Your task to perform on an android device: toggle notification dots Image 0: 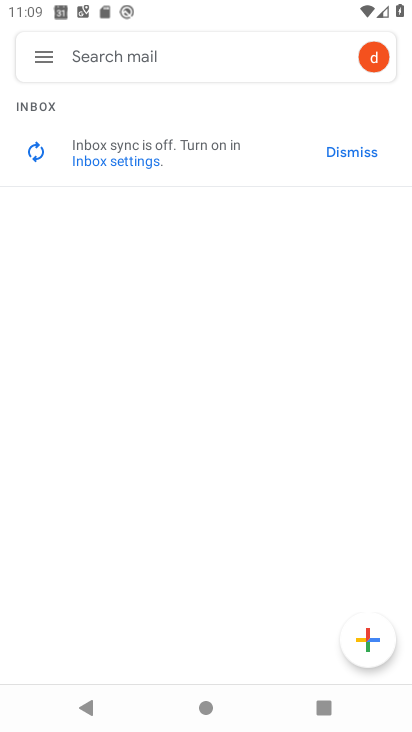
Step 0: press home button
Your task to perform on an android device: toggle notification dots Image 1: 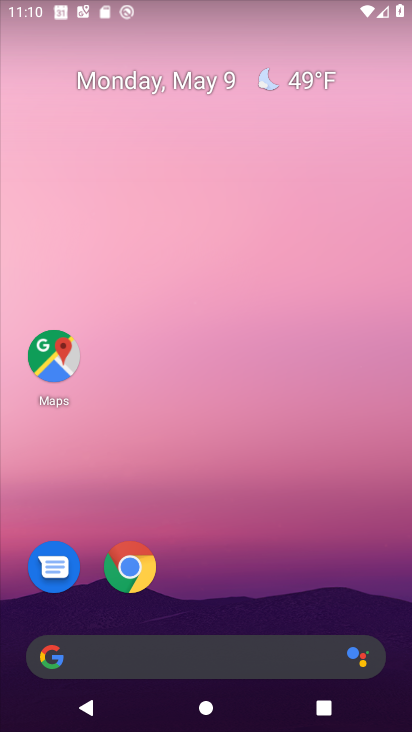
Step 1: drag from (166, 638) to (185, 308)
Your task to perform on an android device: toggle notification dots Image 2: 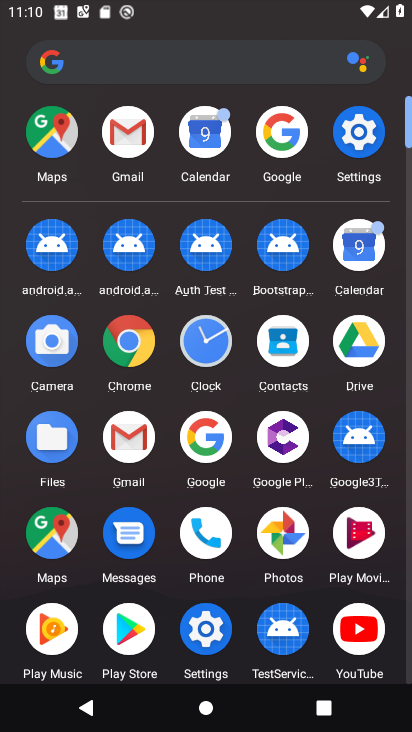
Step 2: click (366, 119)
Your task to perform on an android device: toggle notification dots Image 3: 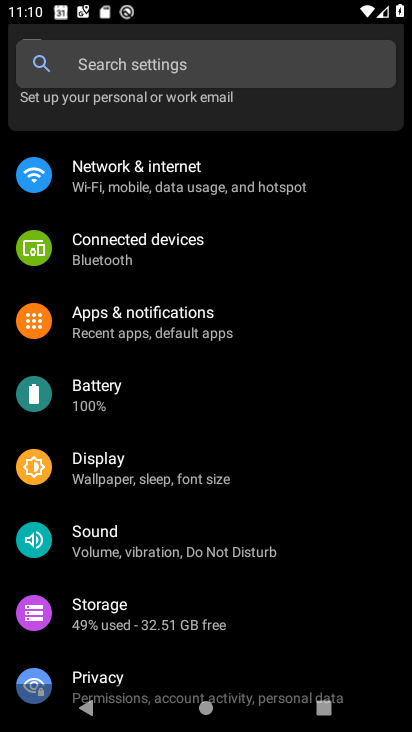
Step 3: click (146, 321)
Your task to perform on an android device: toggle notification dots Image 4: 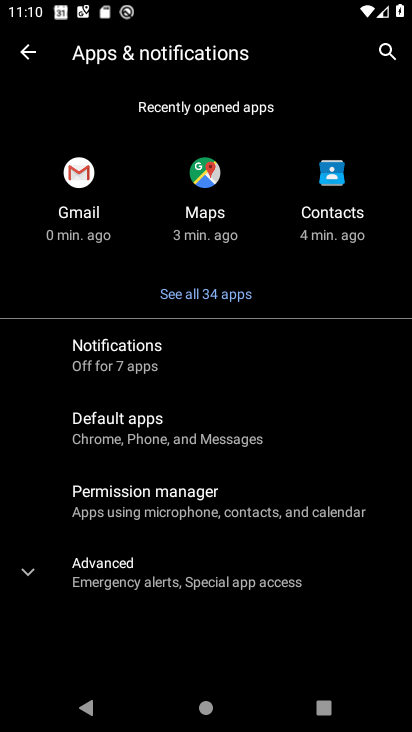
Step 4: click (127, 373)
Your task to perform on an android device: toggle notification dots Image 5: 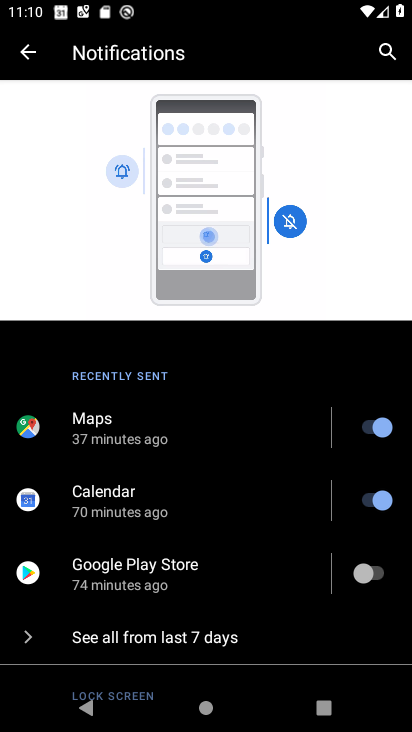
Step 5: drag from (190, 663) to (166, 298)
Your task to perform on an android device: toggle notification dots Image 6: 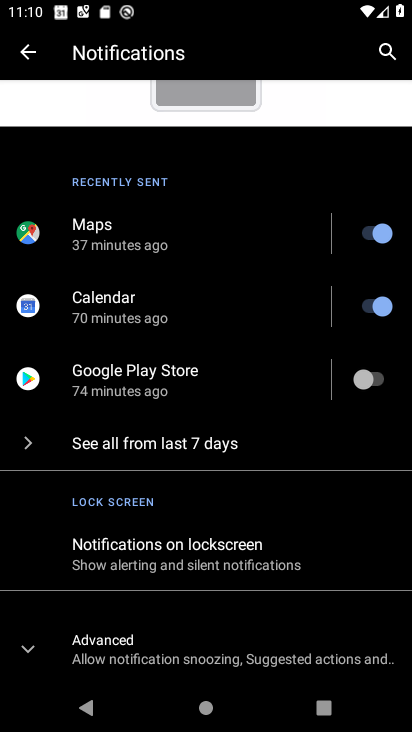
Step 6: click (126, 662)
Your task to perform on an android device: toggle notification dots Image 7: 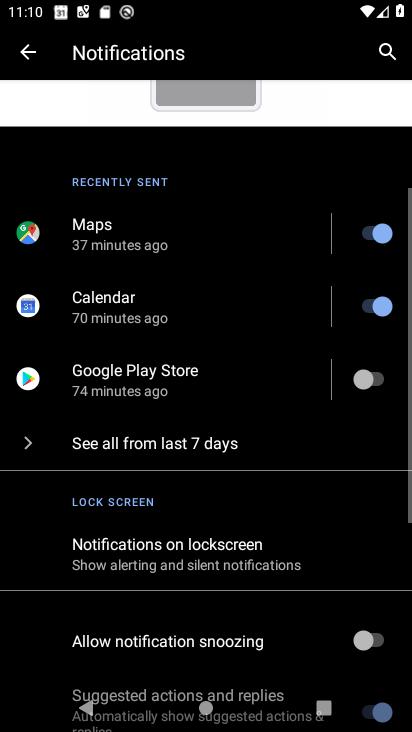
Step 7: drag from (251, 668) to (240, 357)
Your task to perform on an android device: toggle notification dots Image 8: 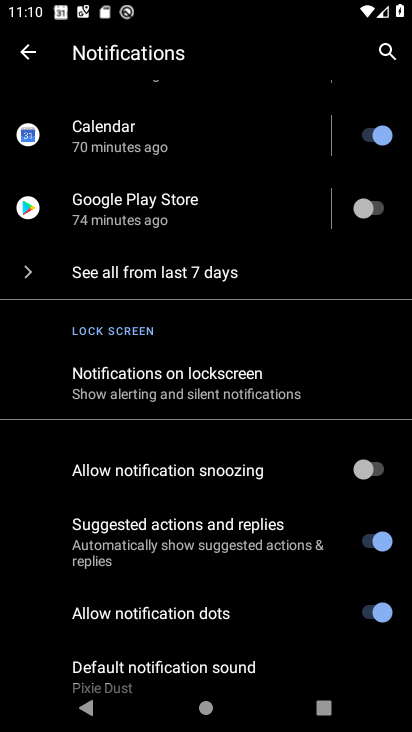
Step 8: click (365, 616)
Your task to perform on an android device: toggle notification dots Image 9: 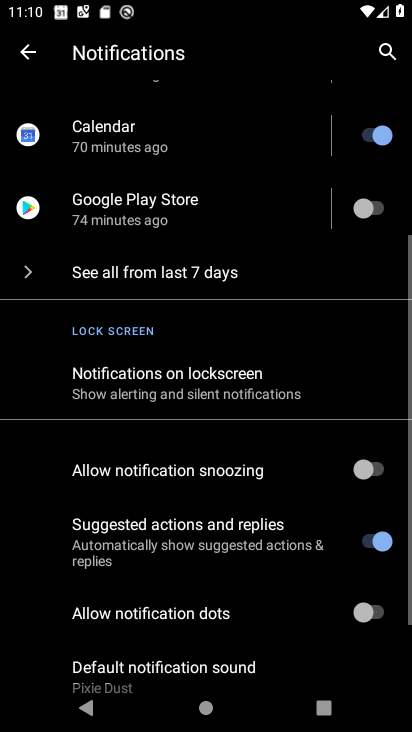
Step 9: task complete